Your task to perform on an android device: Open privacy settings Image 0: 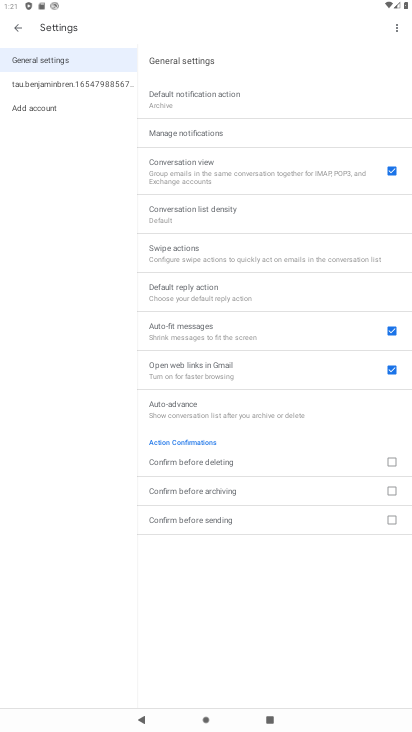
Step 0: press home button
Your task to perform on an android device: Open privacy settings Image 1: 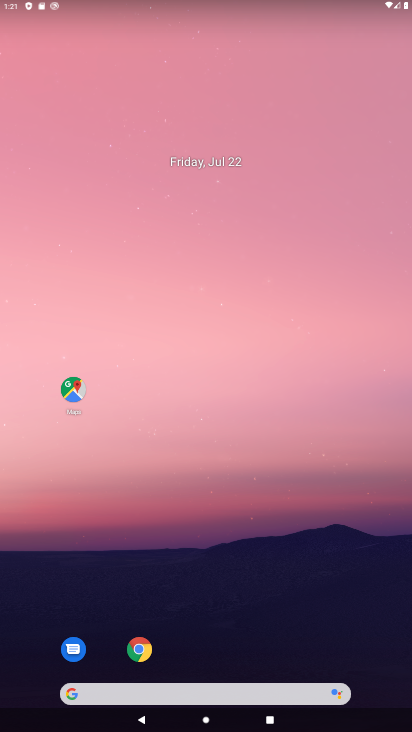
Step 1: drag from (345, 582) to (242, 134)
Your task to perform on an android device: Open privacy settings Image 2: 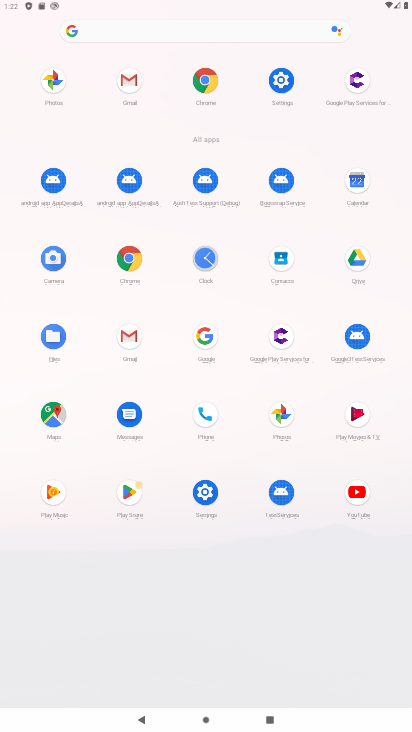
Step 2: click (212, 492)
Your task to perform on an android device: Open privacy settings Image 3: 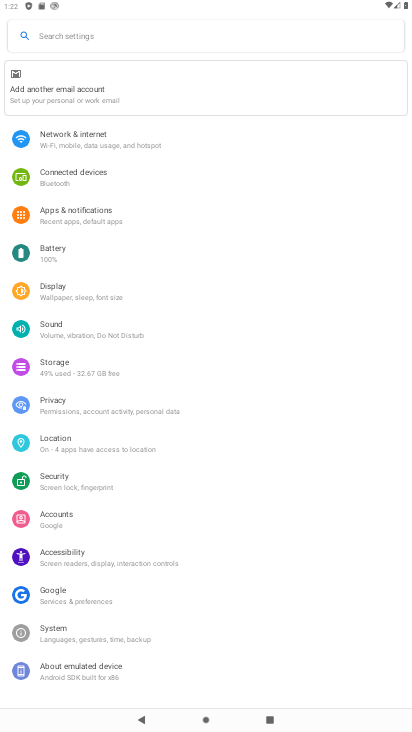
Step 3: click (88, 400)
Your task to perform on an android device: Open privacy settings Image 4: 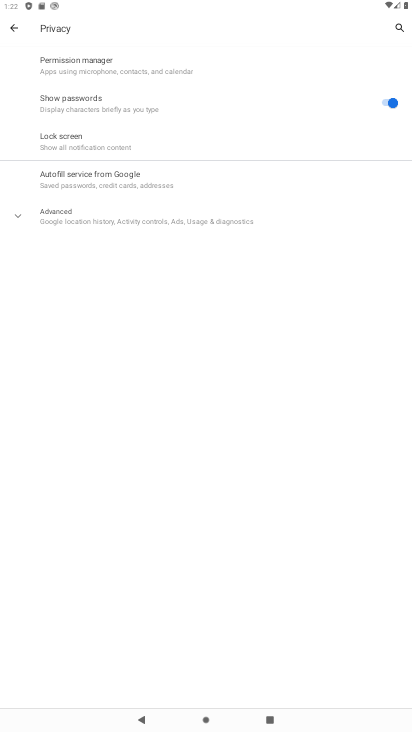
Step 4: task complete